Your task to perform on an android device: Search for vegetarian restaurants on Maps Image 0: 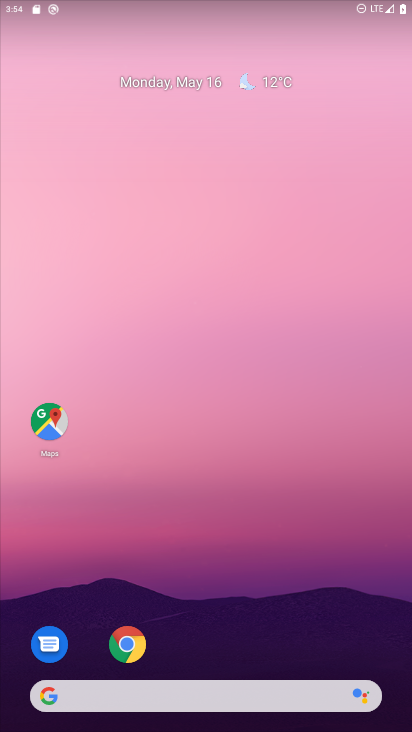
Step 0: click (48, 418)
Your task to perform on an android device: Search for vegetarian restaurants on Maps Image 1: 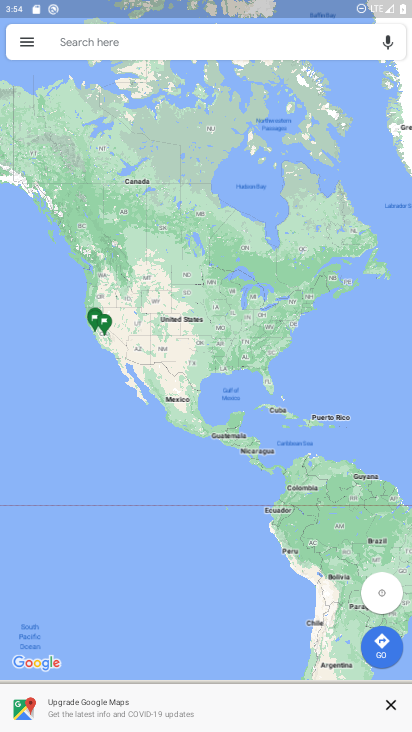
Step 1: click (196, 31)
Your task to perform on an android device: Search for vegetarian restaurants on Maps Image 2: 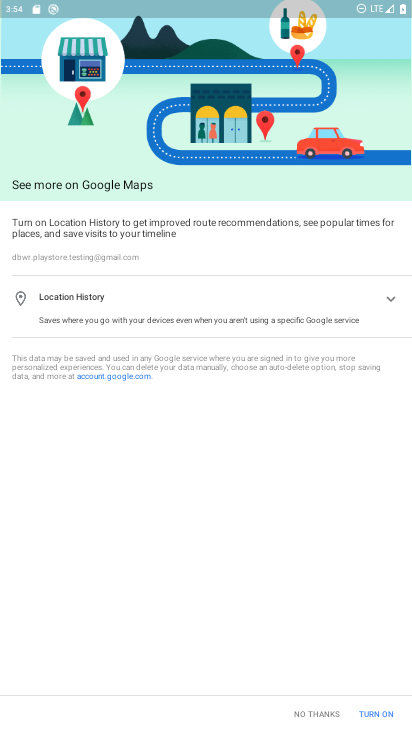
Step 2: click (306, 713)
Your task to perform on an android device: Search for vegetarian restaurants on Maps Image 3: 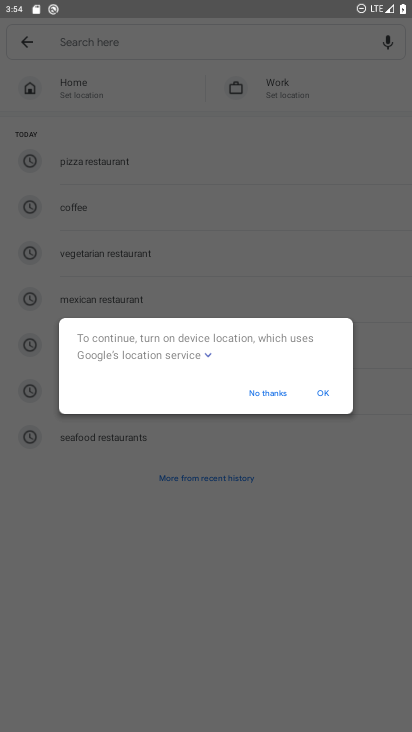
Step 3: click (268, 392)
Your task to perform on an android device: Search for vegetarian restaurants on Maps Image 4: 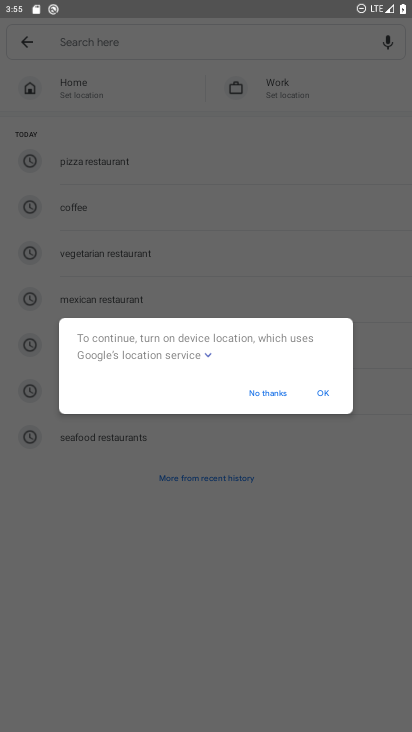
Step 4: click (270, 390)
Your task to perform on an android device: Search for vegetarian restaurants on Maps Image 5: 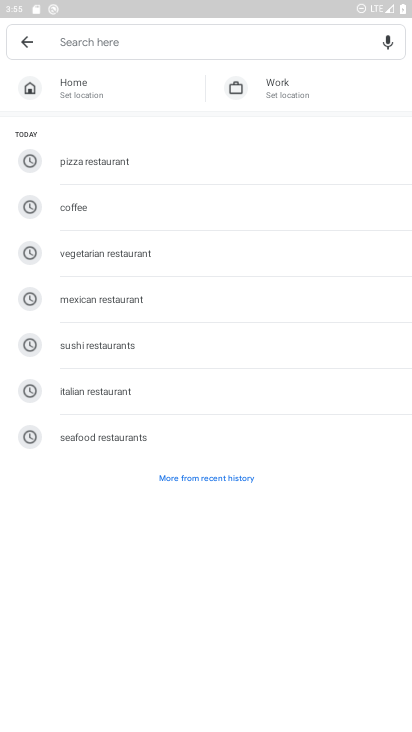
Step 5: click (148, 254)
Your task to perform on an android device: Search for vegetarian restaurants on Maps Image 6: 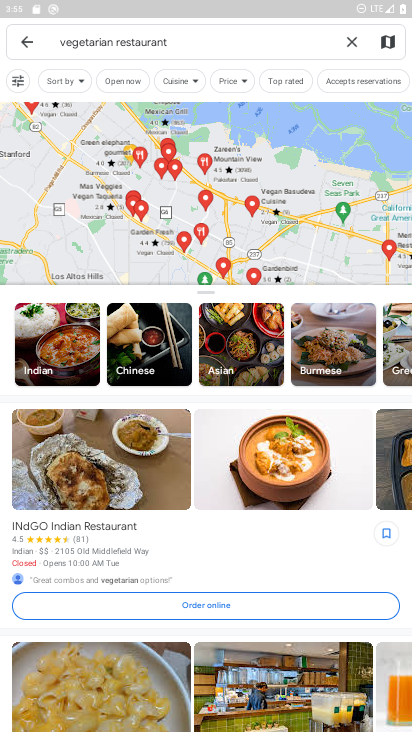
Step 6: task complete